Your task to perform on an android device: Open the map Image 0: 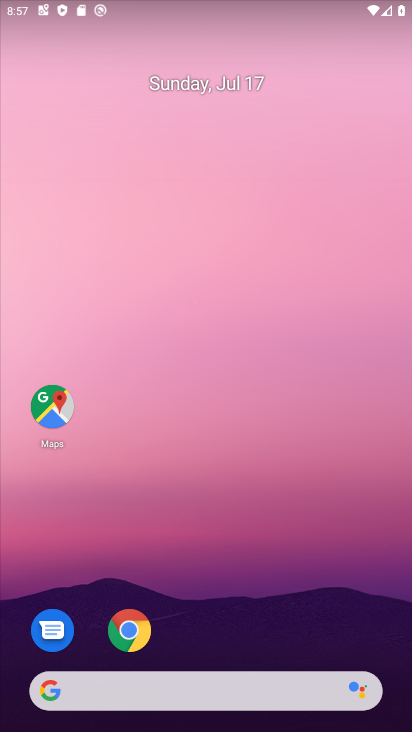
Step 0: drag from (363, 627) to (373, 127)
Your task to perform on an android device: Open the map Image 1: 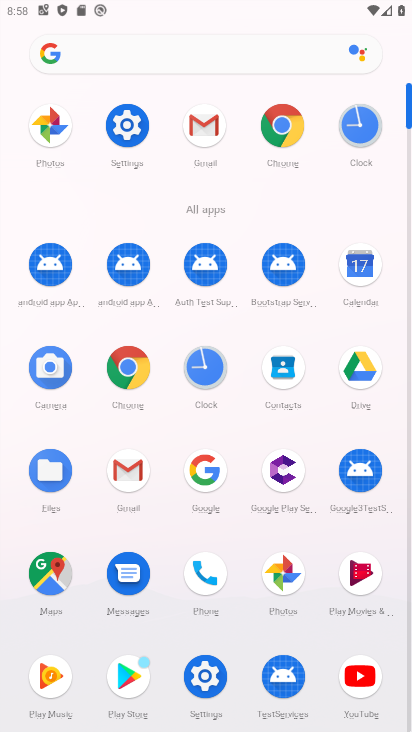
Step 1: click (55, 567)
Your task to perform on an android device: Open the map Image 2: 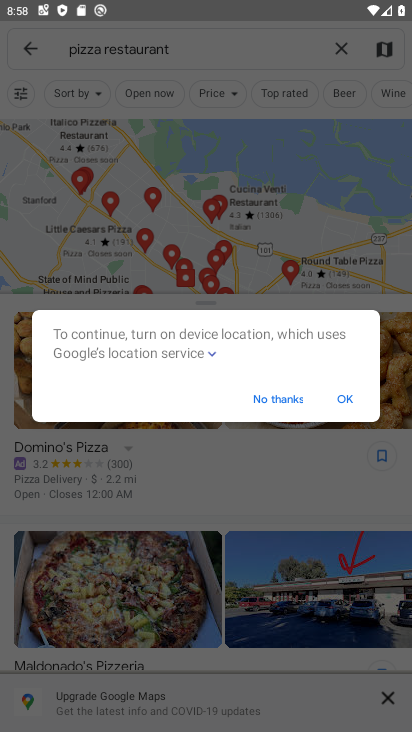
Step 2: click (290, 392)
Your task to perform on an android device: Open the map Image 3: 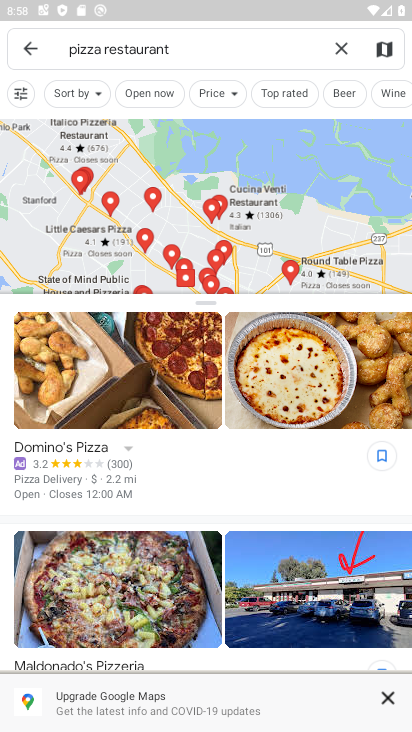
Step 3: task complete